Your task to perform on an android device: open app "Facebook Lite" (install if not already installed) Image 0: 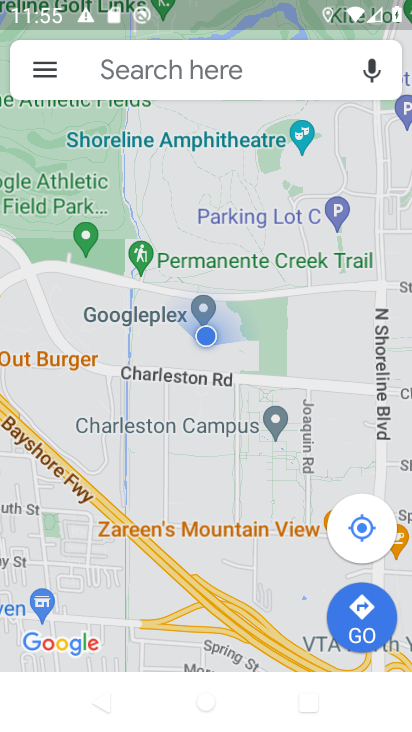
Step 0: press back button
Your task to perform on an android device: open app "Facebook Lite" (install if not already installed) Image 1: 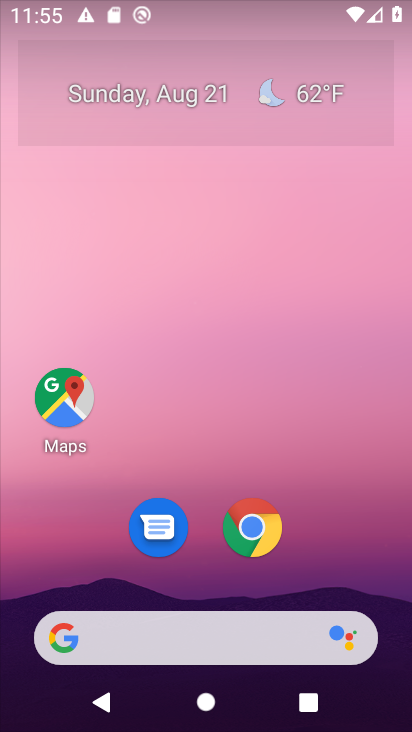
Step 1: drag from (193, 577) to (272, 60)
Your task to perform on an android device: open app "Facebook Lite" (install if not already installed) Image 2: 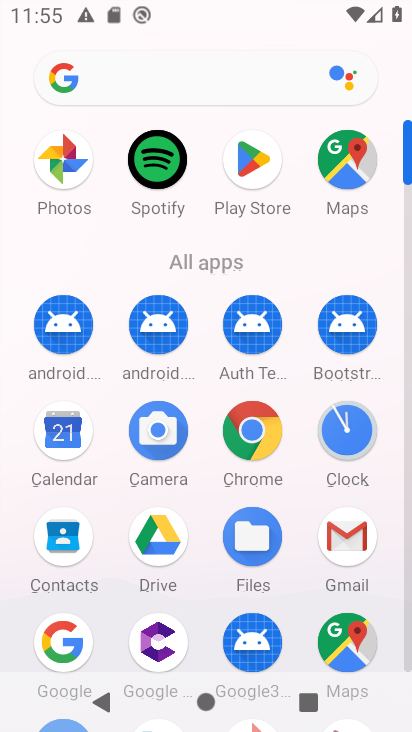
Step 2: click (261, 183)
Your task to perform on an android device: open app "Facebook Lite" (install if not already installed) Image 3: 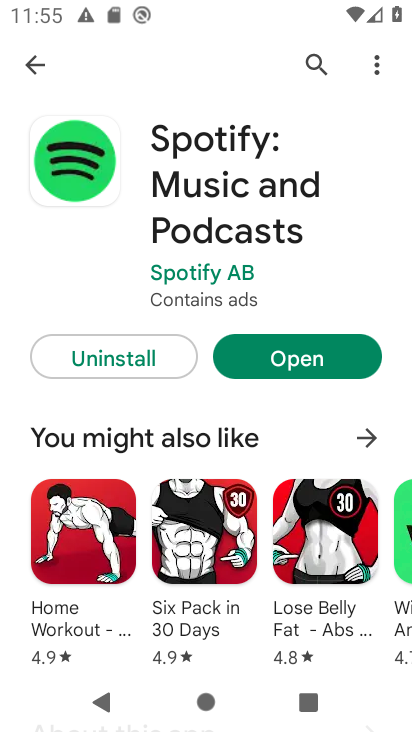
Step 3: click (330, 48)
Your task to perform on an android device: open app "Facebook Lite" (install if not already installed) Image 4: 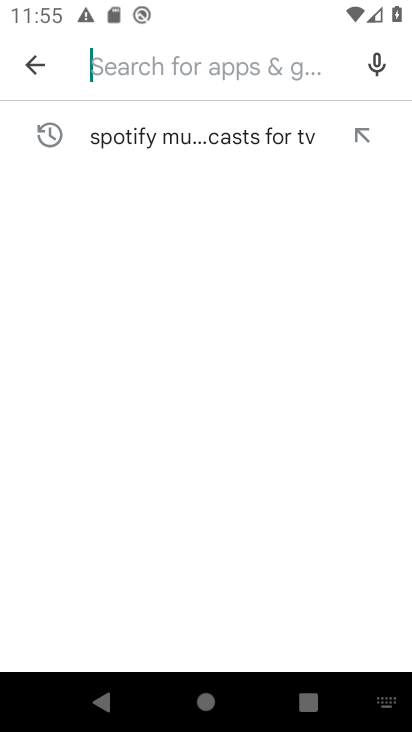
Step 4: click (141, 69)
Your task to perform on an android device: open app "Facebook Lite" (install if not already installed) Image 5: 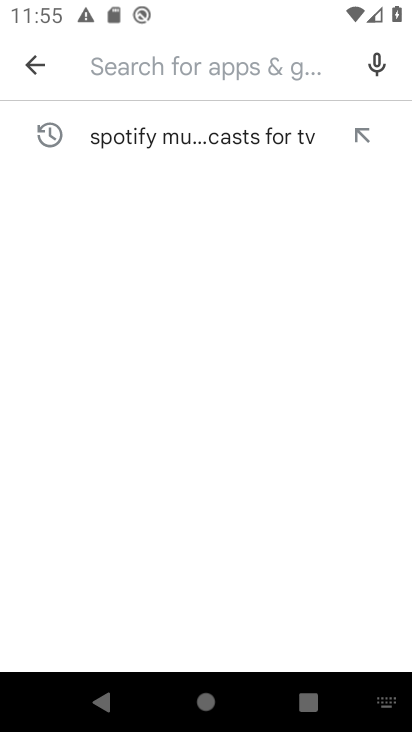
Step 5: click (159, 82)
Your task to perform on an android device: open app "Facebook Lite" (install if not already installed) Image 6: 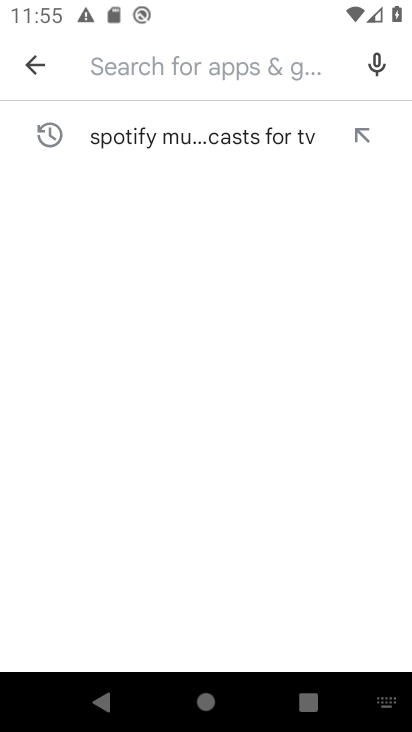
Step 6: type "Facebook Lite"
Your task to perform on an android device: open app "Facebook Lite" (install if not already installed) Image 7: 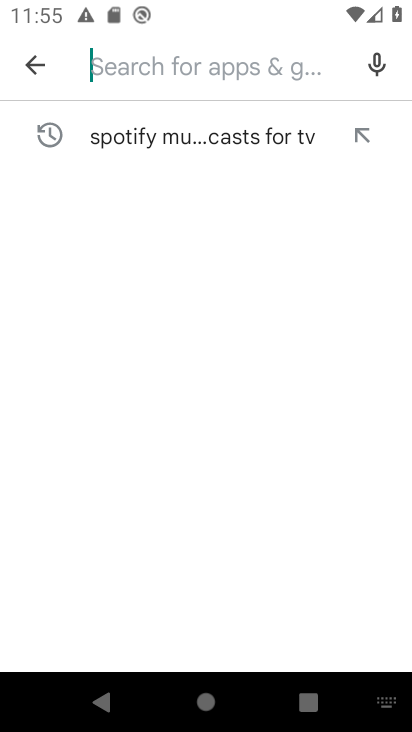
Step 7: click (235, 389)
Your task to perform on an android device: open app "Facebook Lite" (install if not already installed) Image 8: 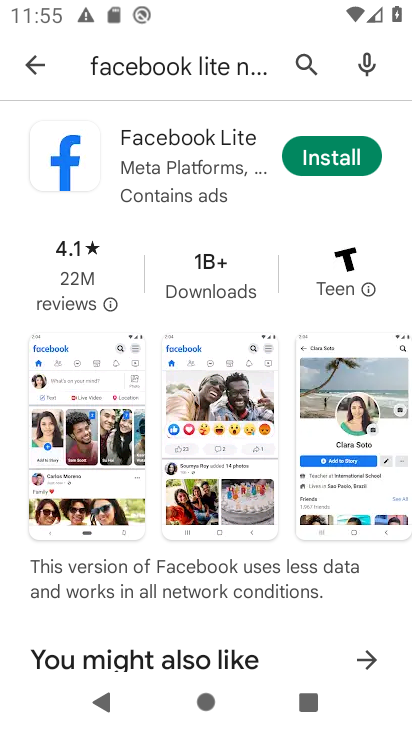
Step 8: click (321, 152)
Your task to perform on an android device: open app "Facebook Lite" (install if not already installed) Image 9: 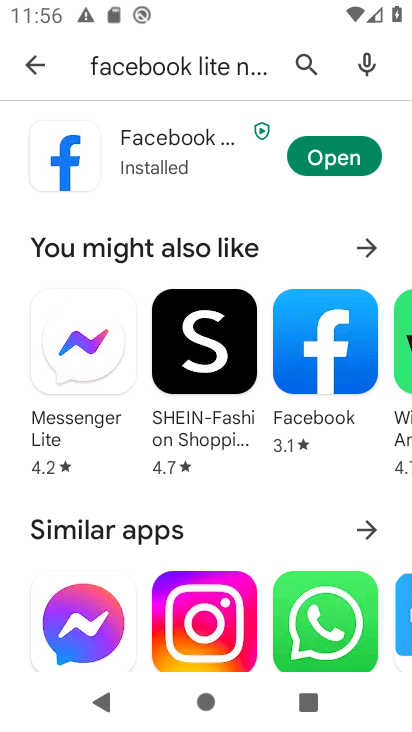
Step 9: click (320, 154)
Your task to perform on an android device: open app "Facebook Lite" (install if not already installed) Image 10: 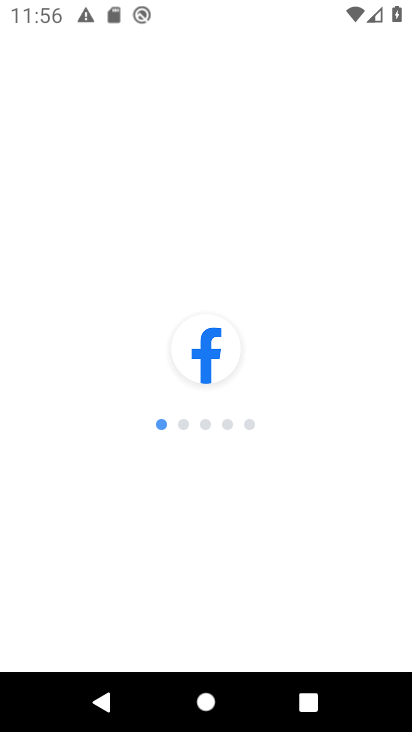
Step 10: task complete